Your task to perform on an android device: toggle notification dots Image 0: 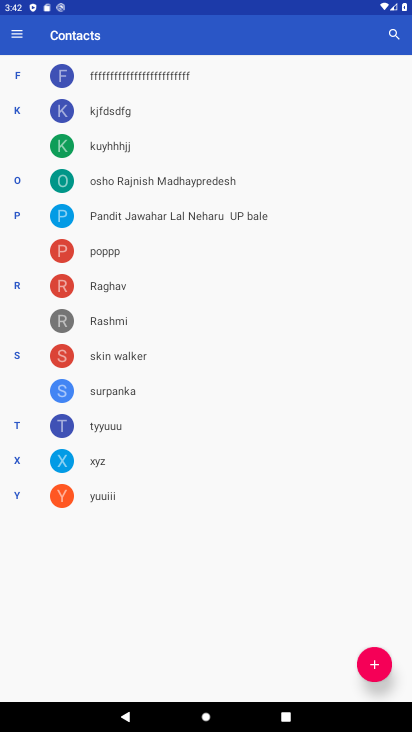
Step 0: press home button
Your task to perform on an android device: toggle notification dots Image 1: 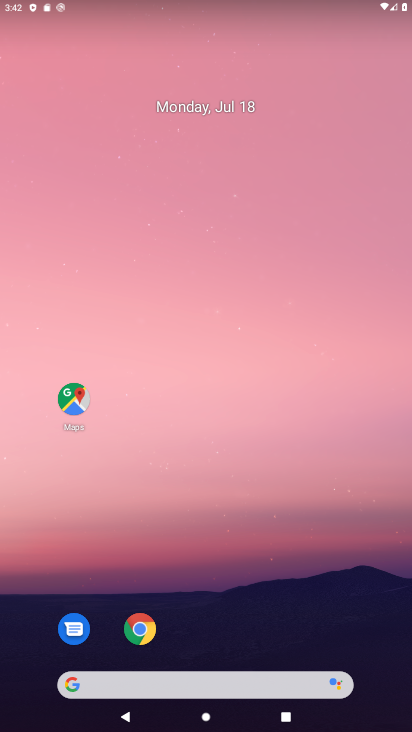
Step 1: drag from (218, 634) to (330, 55)
Your task to perform on an android device: toggle notification dots Image 2: 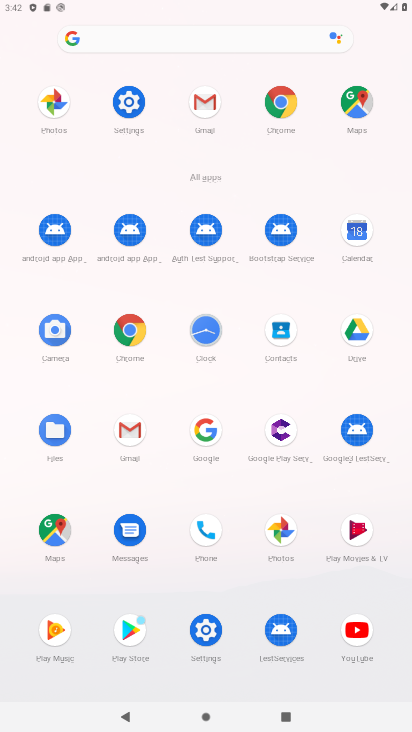
Step 2: click (210, 628)
Your task to perform on an android device: toggle notification dots Image 3: 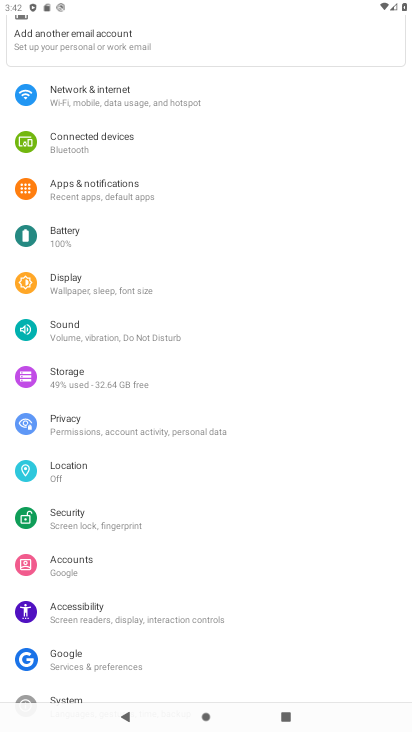
Step 3: click (126, 197)
Your task to perform on an android device: toggle notification dots Image 4: 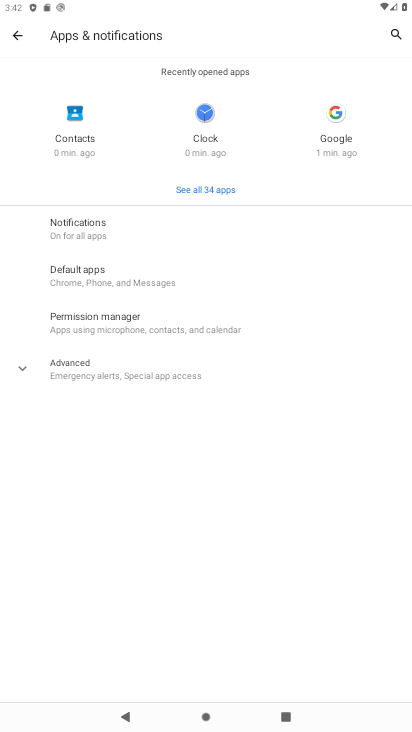
Step 4: click (129, 232)
Your task to perform on an android device: toggle notification dots Image 5: 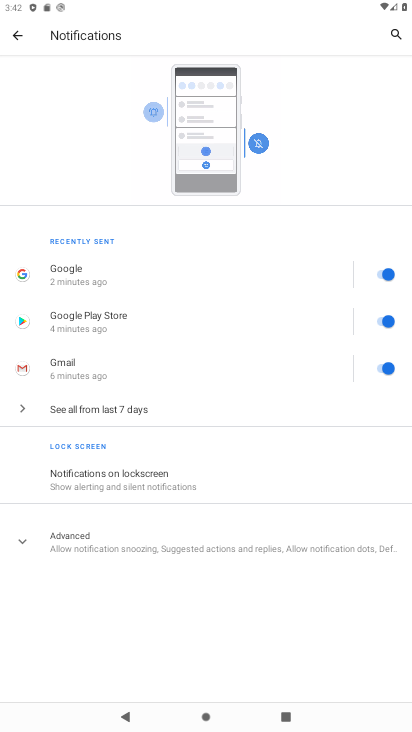
Step 5: click (229, 547)
Your task to perform on an android device: toggle notification dots Image 6: 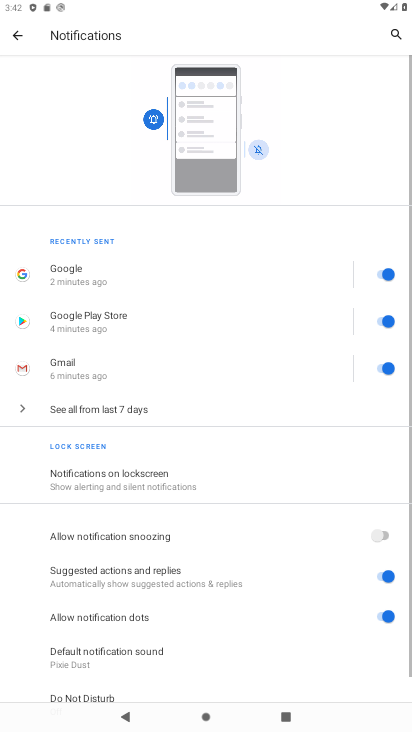
Step 6: drag from (194, 619) to (239, 334)
Your task to perform on an android device: toggle notification dots Image 7: 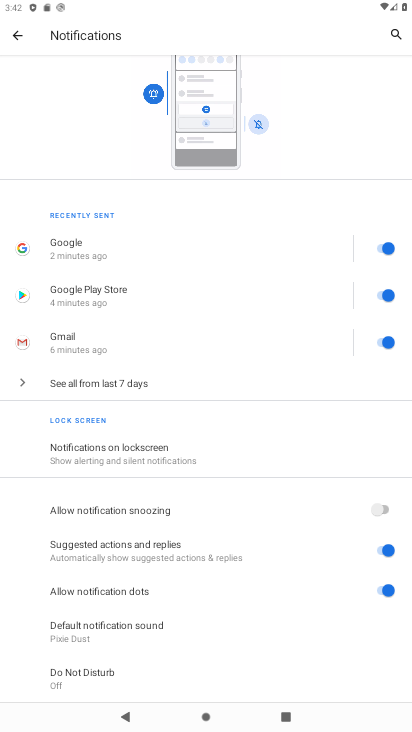
Step 7: click (380, 584)
Your task to perform on an android device: toggle notification dots Image 8: 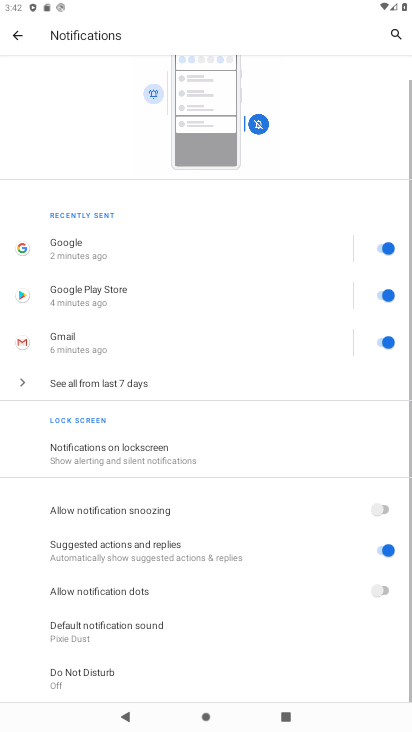
Step 8: task complete